Your task to perform on an android device: toggle translation in the chrome app Image 0: 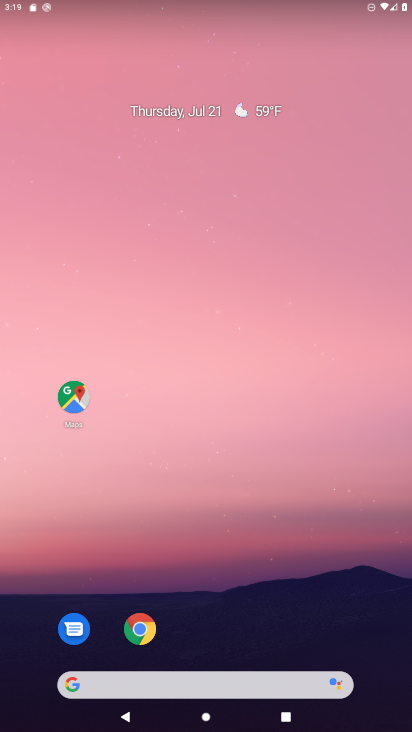
Step 0: click (144, 629)
Your task to perform on an android device: toggle translation in the chrome app Image 1: 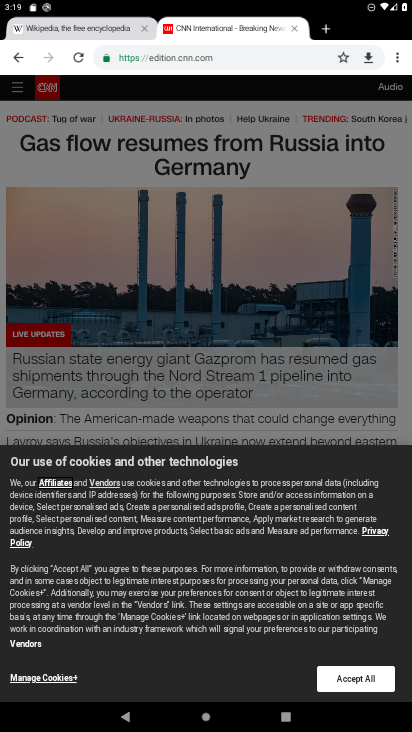
Step 1: click (399, 56)
Your task to perform on an android device: toggle translation in the chrome app Image 2: 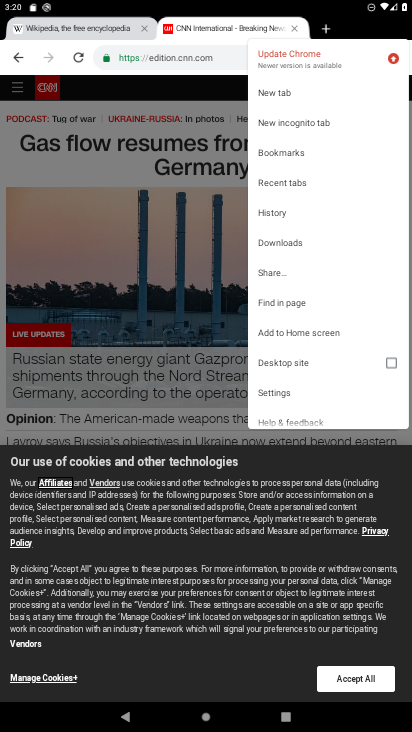
Step 2: click (276, 394)
Your task to perform on an android device: toggle translation in the chrome app Image 3: 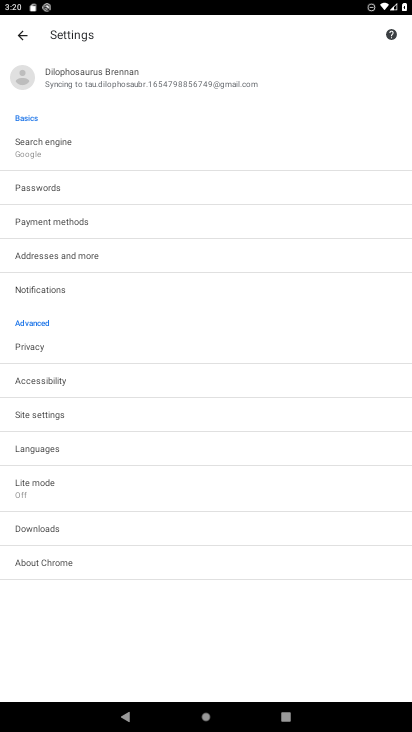
Step 3: click (44, 450)
Your task to perform on an android device: toggle translation in the chrome app Image 4: 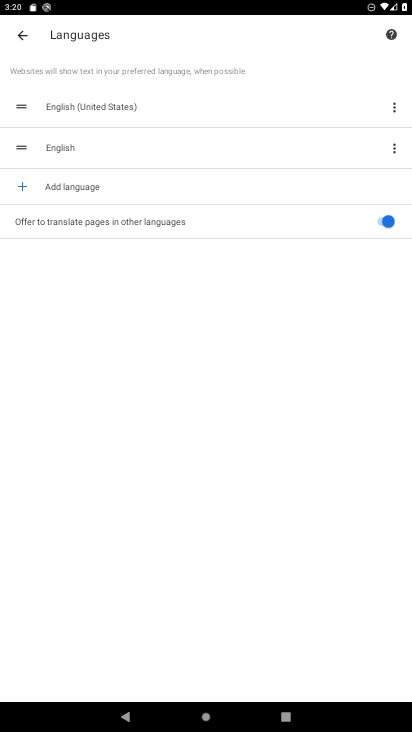
Step 4: click (383, 218)
Your task to perform on an android device: toggle translation in the chrome app Image 5: 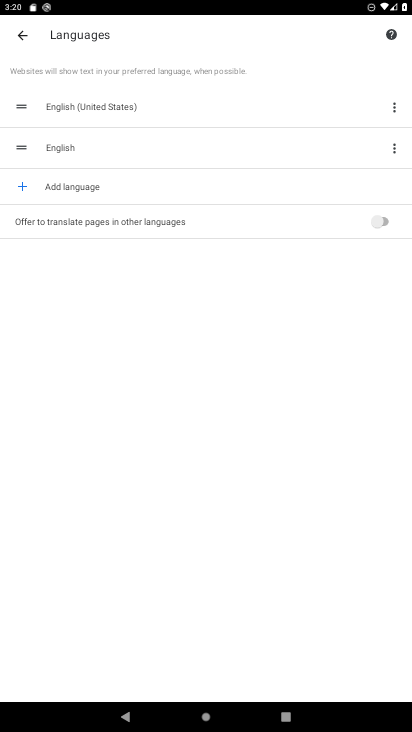
Step 5: task complete